Your task to perform on an android device: turn off airplane mode Image 0: 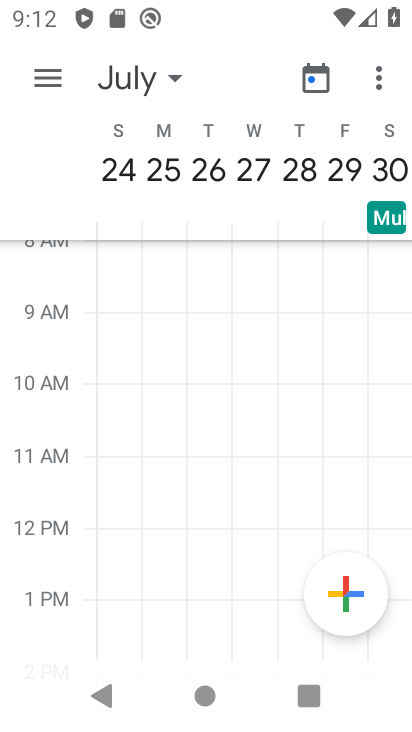
Step 0: press home button
Your task to perform on an android device: turn off airplane mode Image 1: 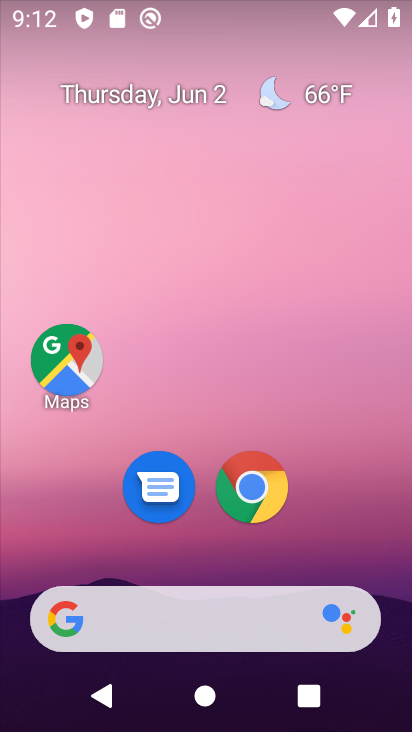
Step 1: drag from (242, 682) to (242, 161)
Your task to perform on an android device: turn off airplane mode Image 2: 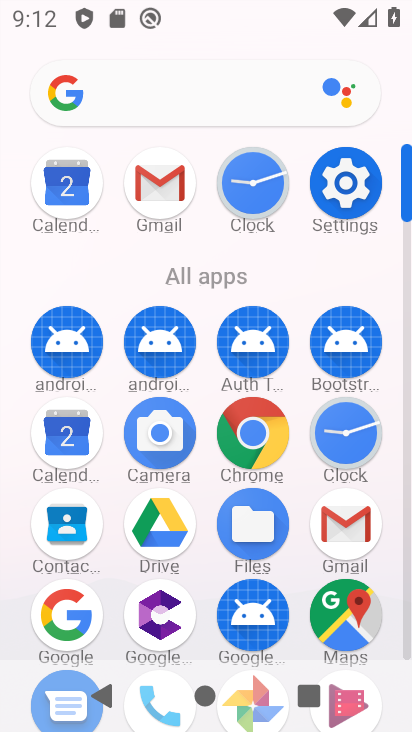
Step 2: click (347, 190)
Your task to perform on an android device: turn off airplane mode Image 3: 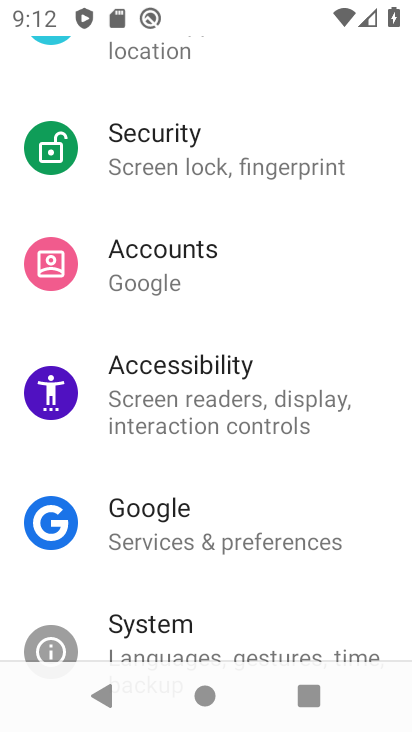
Step 3: drag from (293, 117) to (312, 544)
Your task to perform on an android device: turn off airplane mode Image 4: 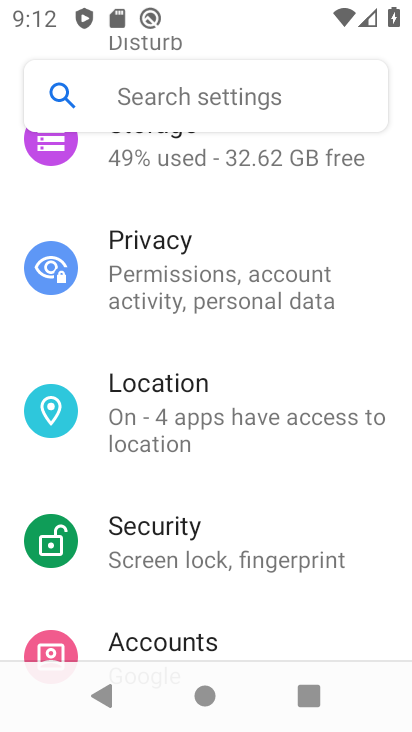
Step 4: drag from (306, 317) to (313, 560)
Your task to perform on an android device: turn off airplane mode Image 5: 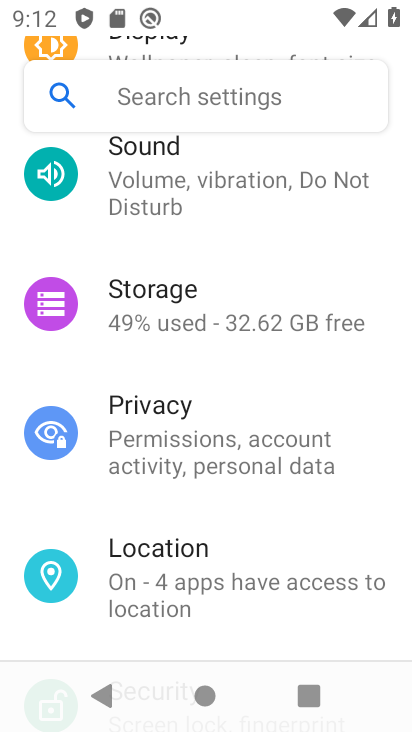
Step 5: drag from (284, 152) to (310, 481)
Your task to perform on an android device: turn off airplane mode Image 6: 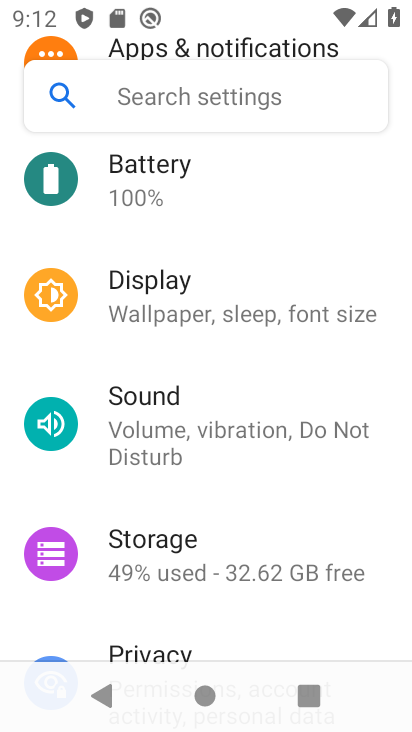
Step 6: drag from (254, 148) to (291, 500)
Your task to perform on an android device: turn off airplane mode Image 7: 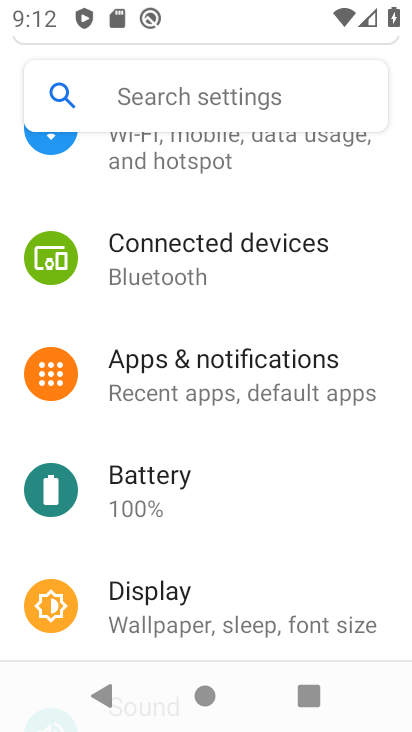
Step 7: drag from (273, 177) to (320, 545)
Your task to perform on an android device: turn off airplane mode Image 8: 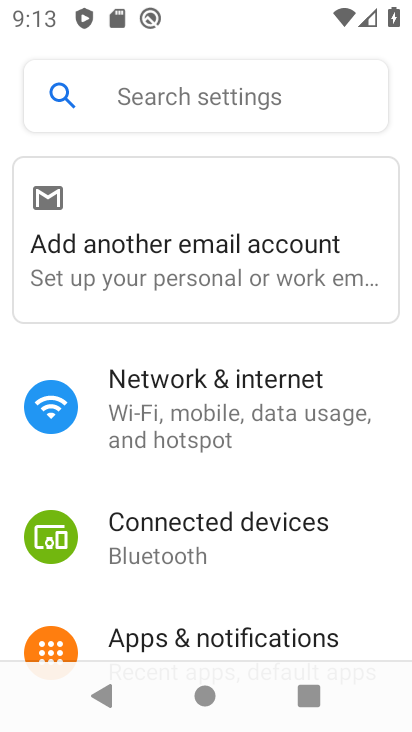
Step 8: click (203, 411)
Your task to perform on an android device: turn off airplane mode Image 9: 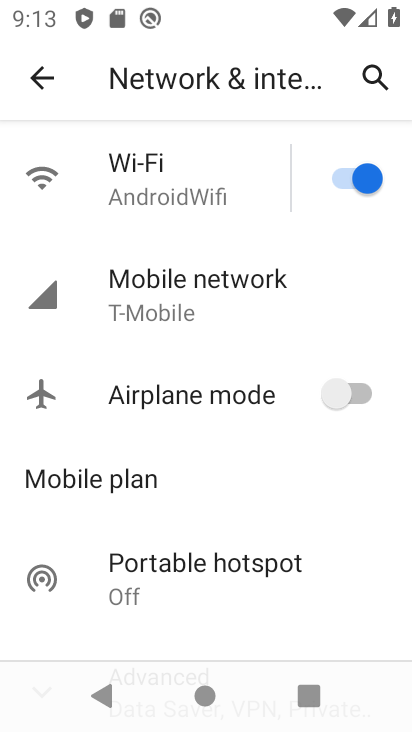
Step 9: task complete